Your task to perform on an android device: move a message to another label in the gmail app Image 0: 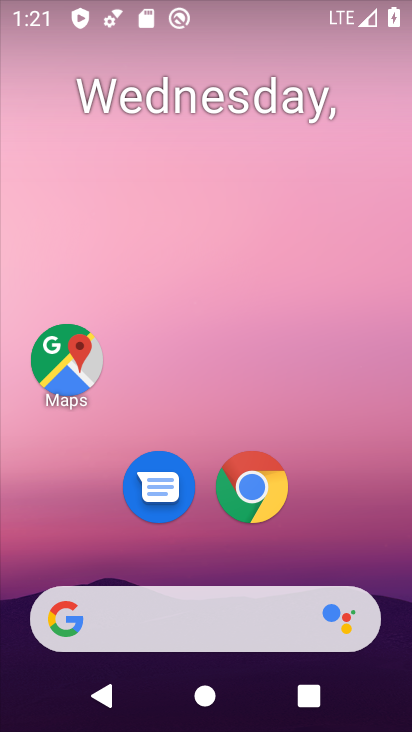
Step 0: drag from (380, 548) to (317, 161)
Your task to perform on an android device: move a message to another label in the gmail app Image 1: 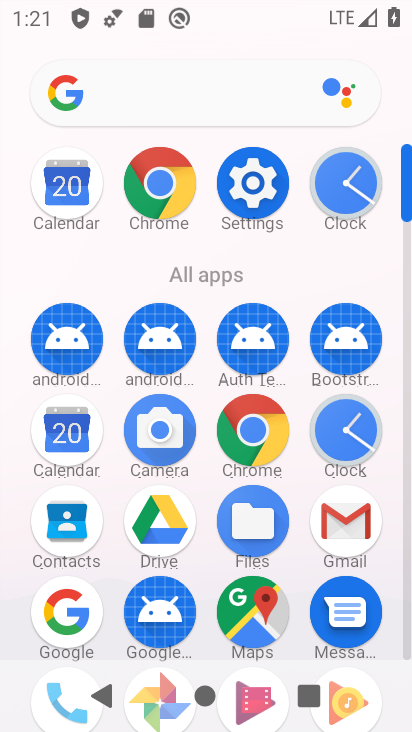
Step 1: click (349, 517)
Your task to perform on an android device: move a message to another label in the gmail app Image 2: 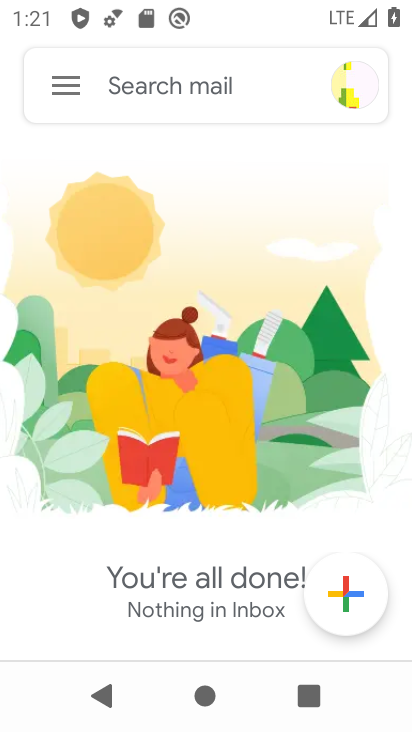
Step 2: click (67, 92)
Your task to perform on an android device: move a message to another label in the gmail app Image 3: 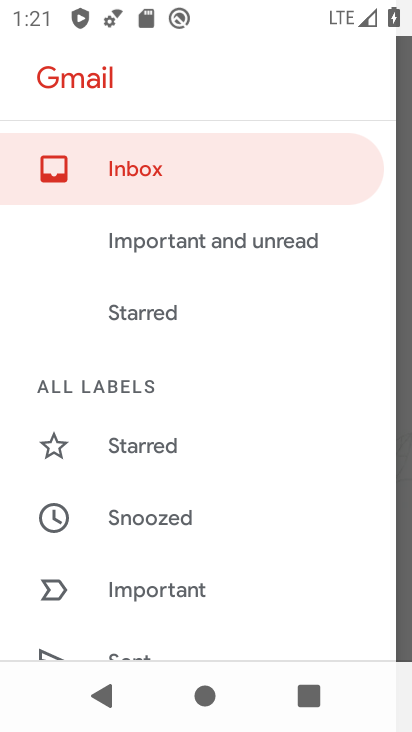
Step 3: drag from (220, 575) to (264, 160)
Your task to perform on an android device: move a message to another label in the gmail app Image 4: 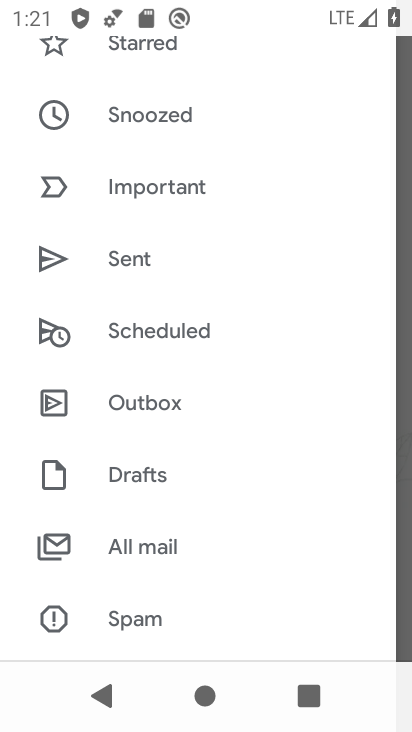
Step 4: click (242, 534)
Your task to perform on an android device: move a message to another label in the gmail app Image 5: 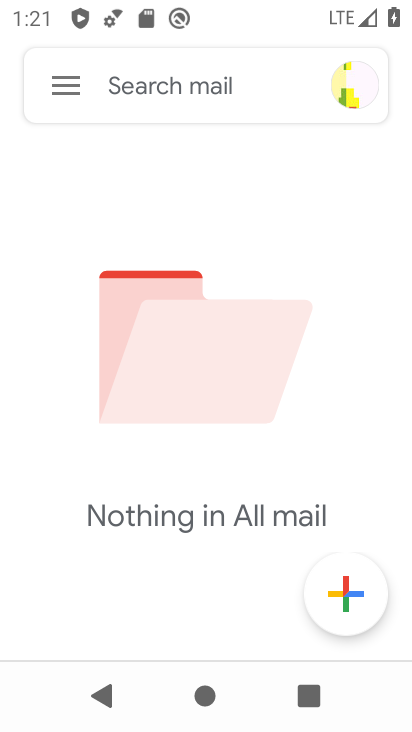
Step 5: task complete